Your task to perform on an android device: open app "Booking.com: Hotels and more" Image 0: 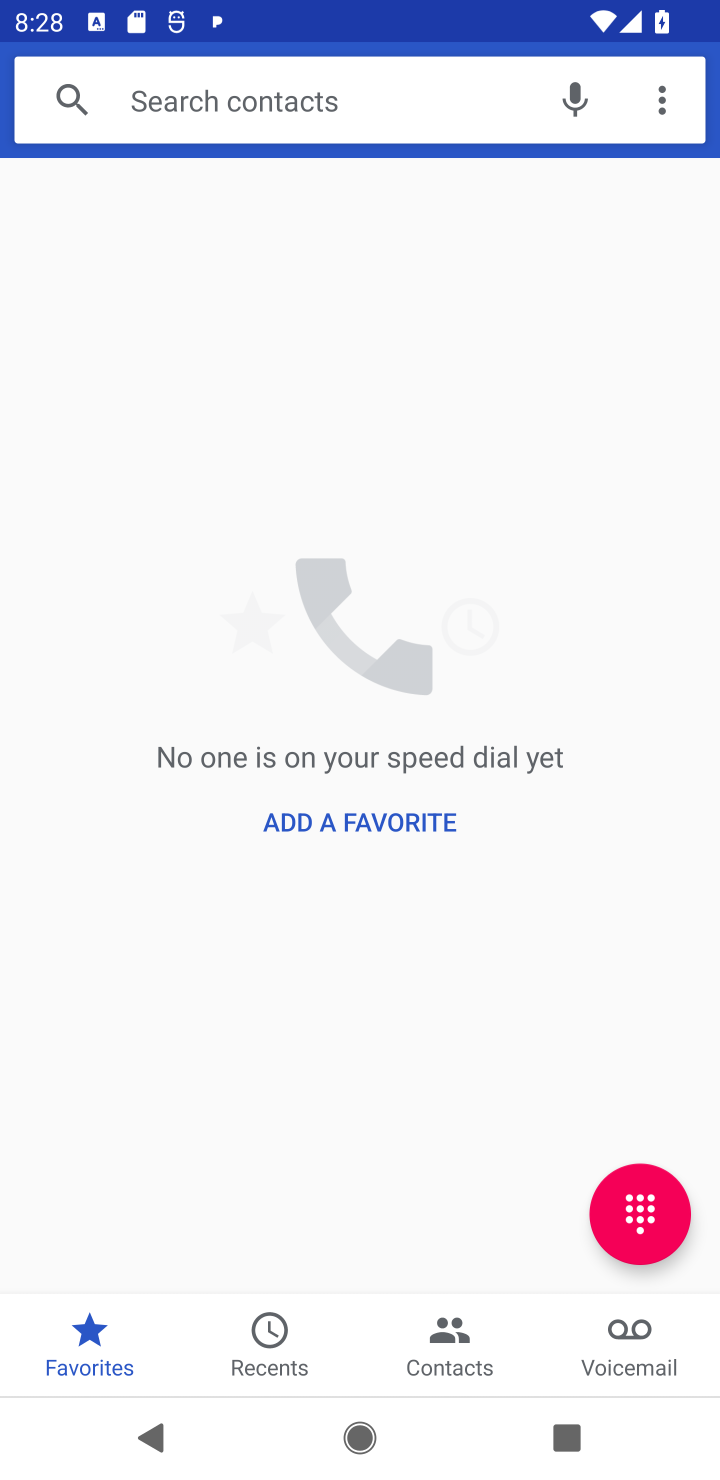
Step 0: press home button
Your task to perform on an android device: open app "Booking.com: Hotels and more" Image 1: 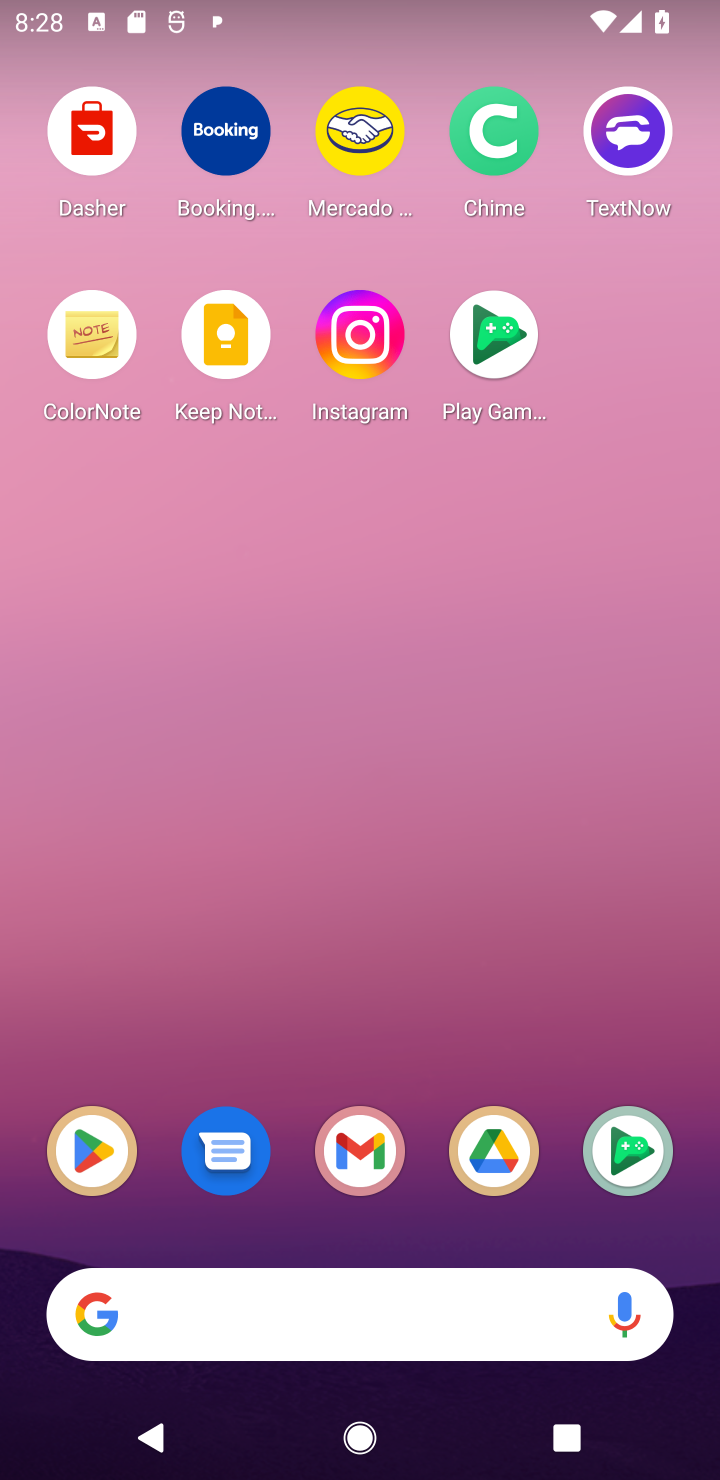
Step 1: click (98, 1161)
Your task to perform on an android device: open app "Booking.com: Hotels and more" Image 2: 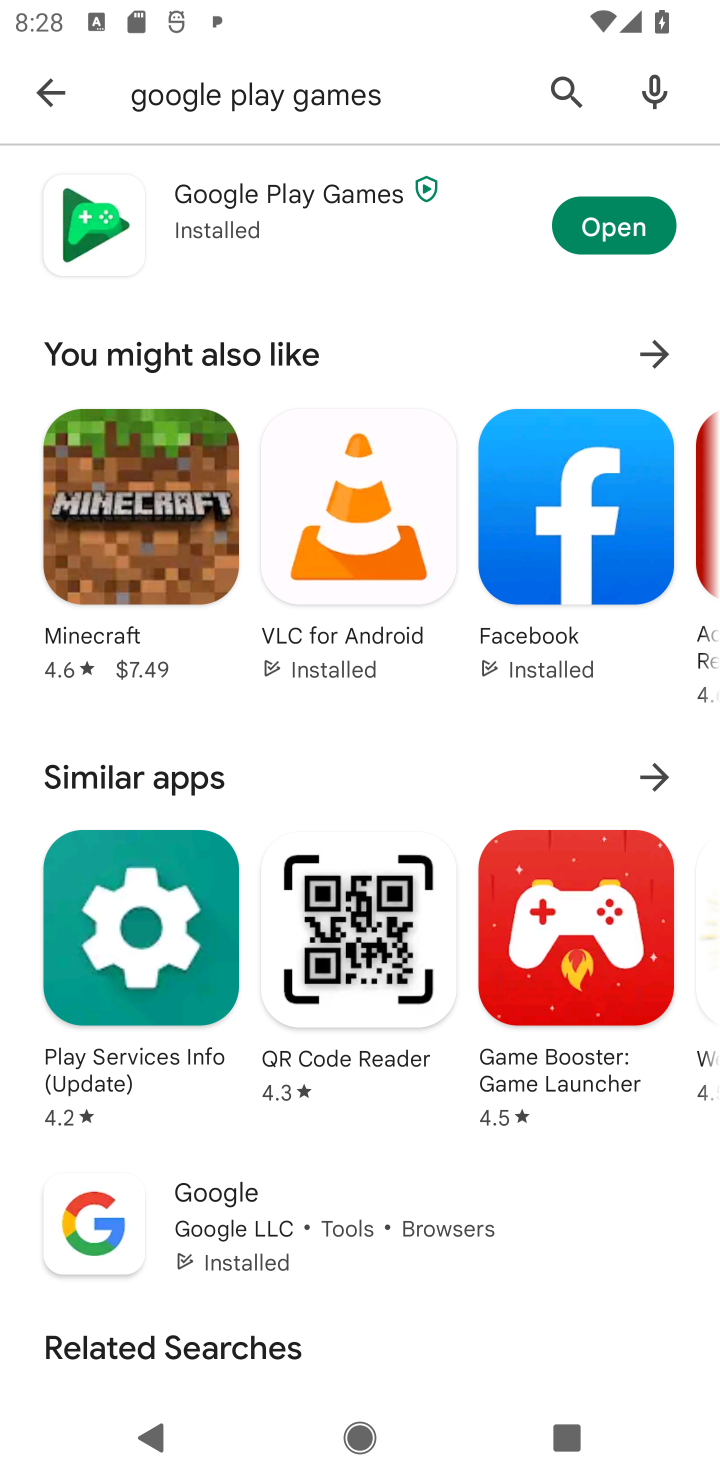
Step 2: click (571, 81)
Your task to perform on an android device: open app "Booking.com: Hotels and more" Image 3: 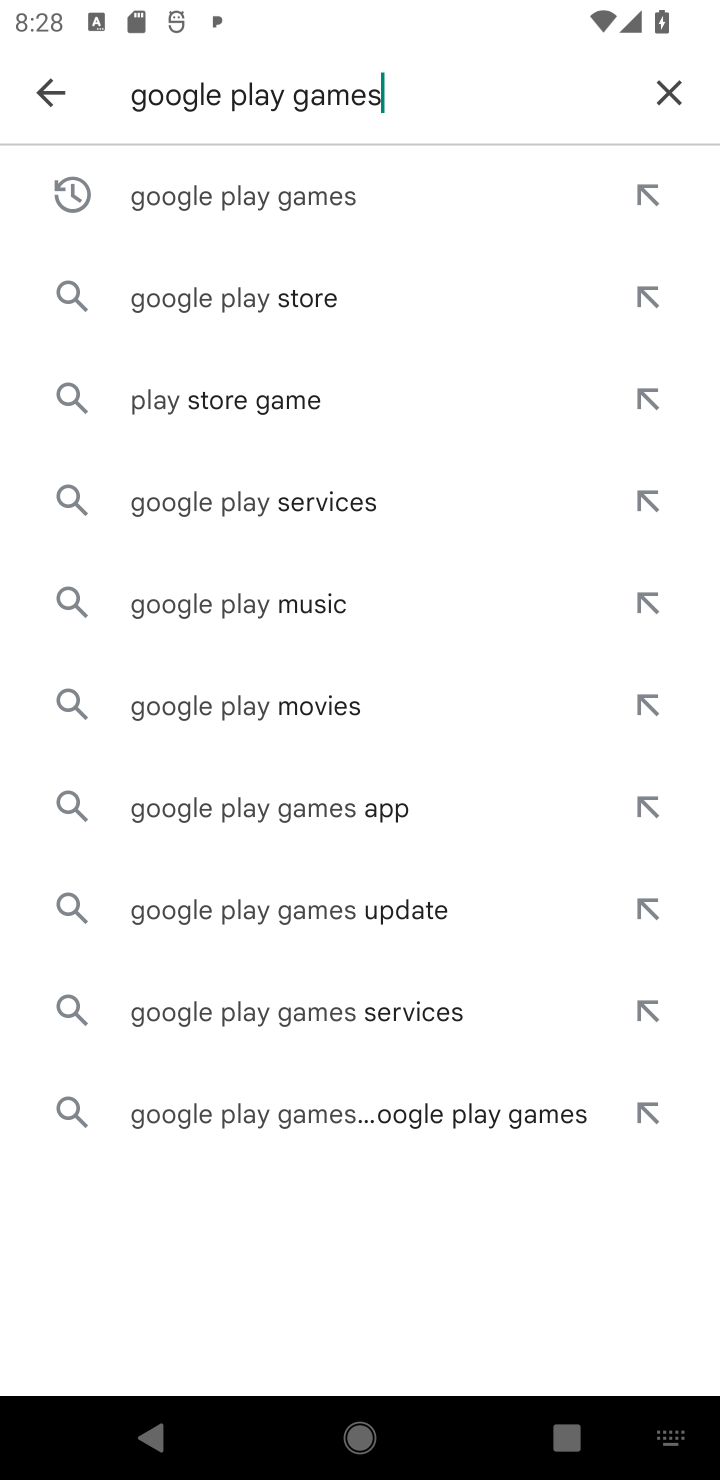
Step 3: click (681, 91)
Your task to perform on an android device: open app "Booking.com: Hotels and more" Image 4: 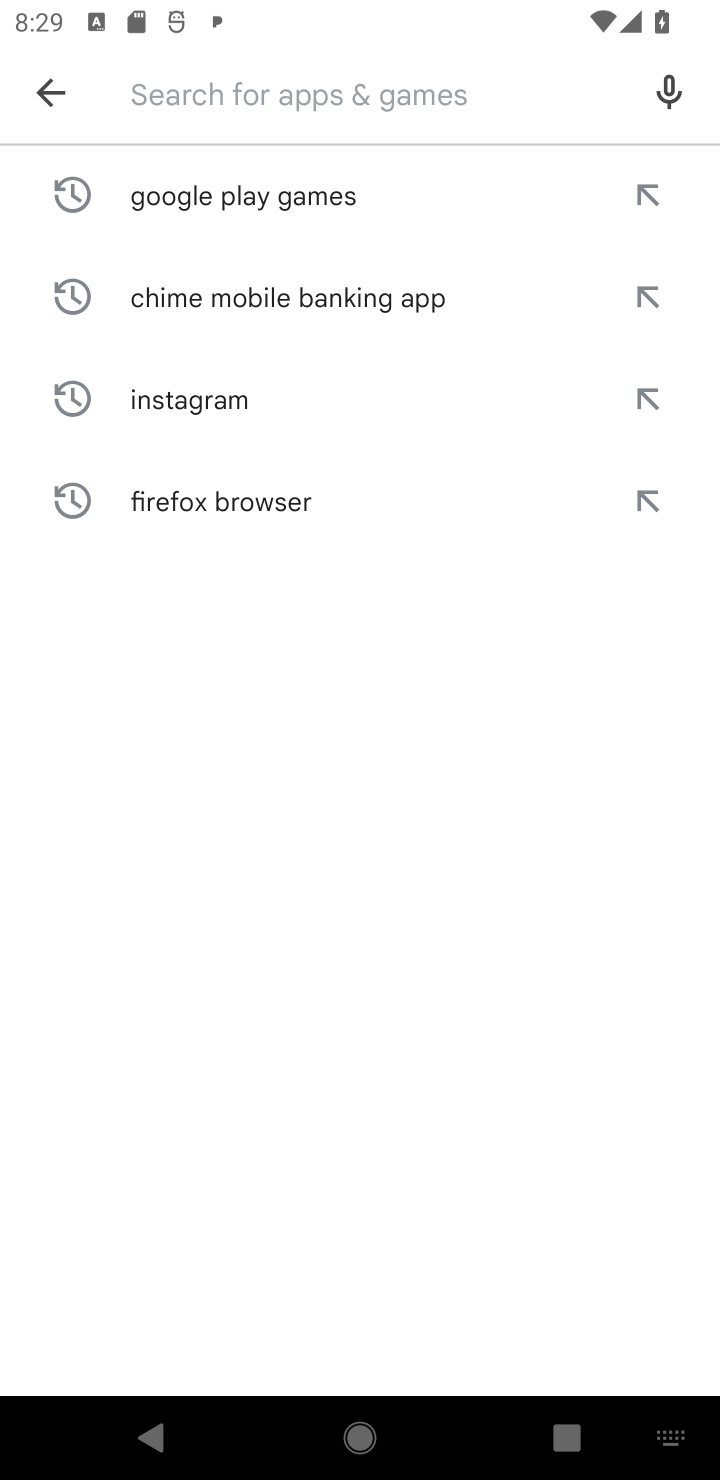
Step 4: type "Booking.com: Hotels and more"
Your task to perform on an android device: open app "Booking.com: Hotels and more" Image 5: 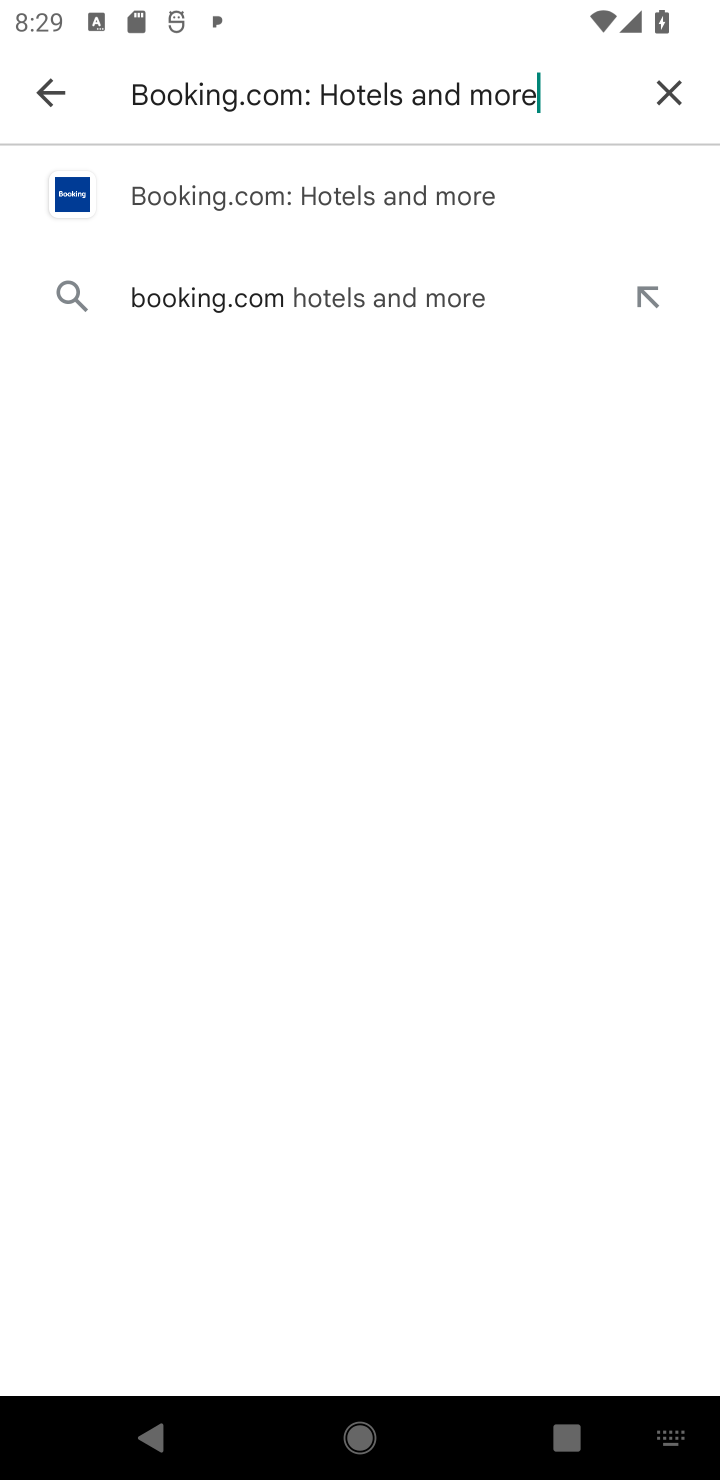
Step 5: click (271, 217)
Your task to perform on an android device: open app "Booking.com: Hotels and more" Image 6: 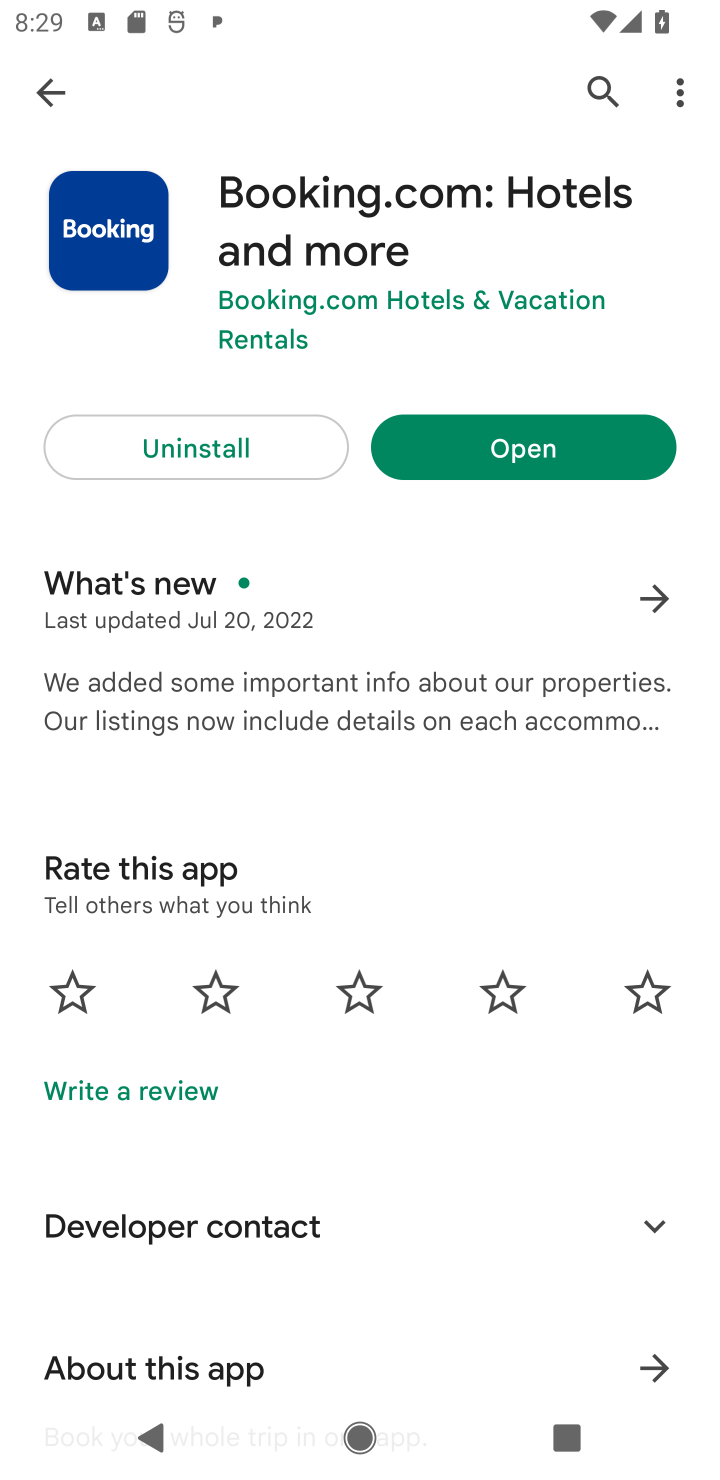
Step 6: click (489, 481)
Your task to perform on an android device: open app "Booking.com: Hotels and more" Image 7: 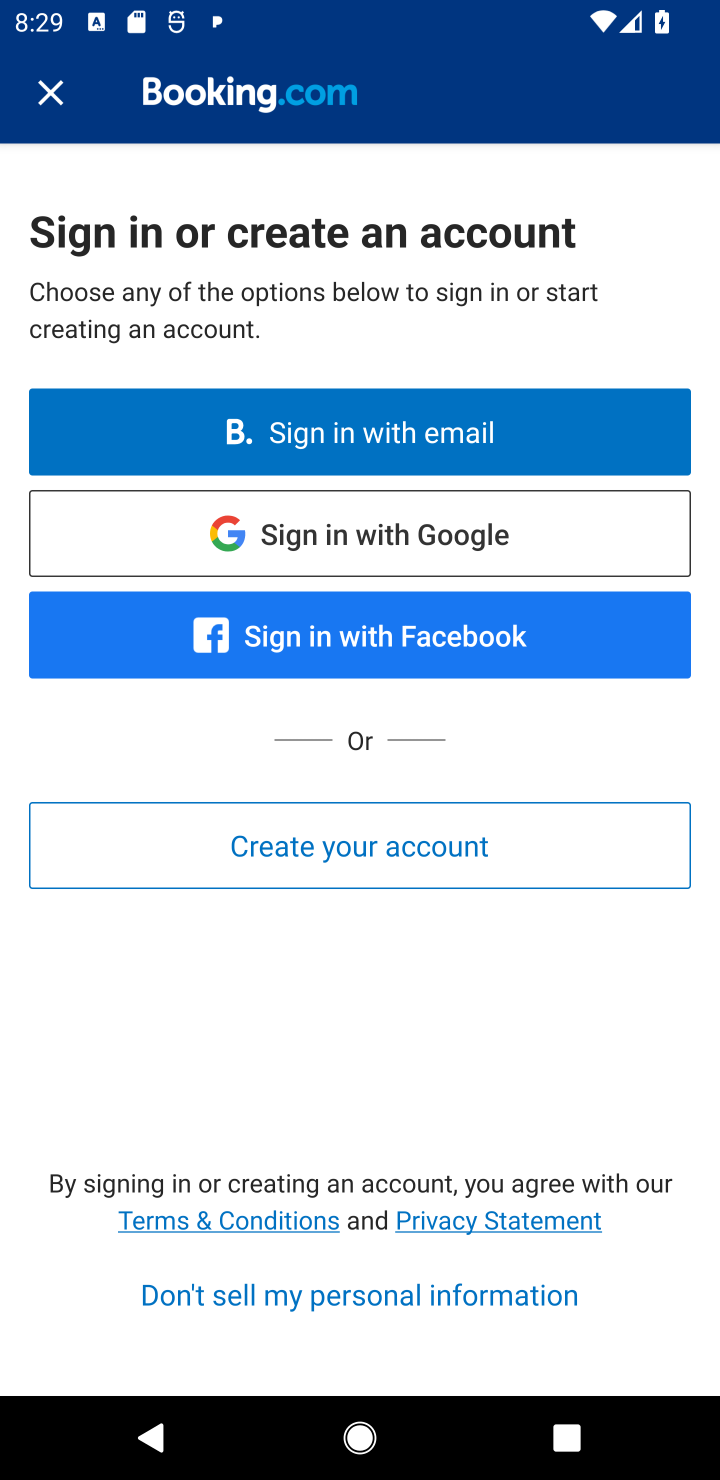
Step 7: task complete